Your task to perform on an android device: Open the stopwatch Image 0: 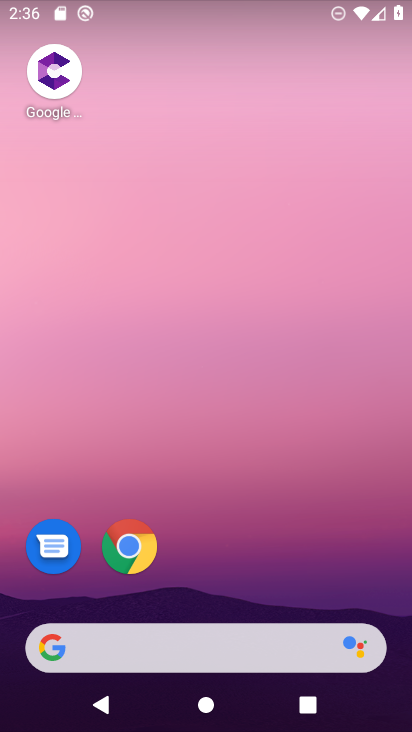
Step 0: drag from (333, 534) to (361, 89)
Your task to perform on an android device: Open the stopwatch Image 1: 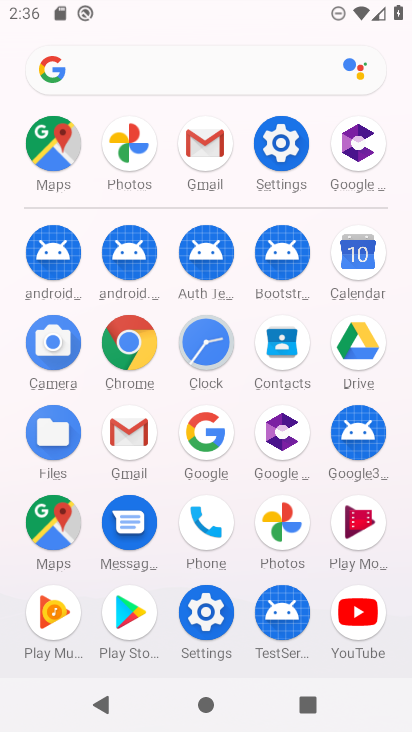
Step 1: click (211, 340)
Your task to perform on an android device: Open the stopwatch Image 2: 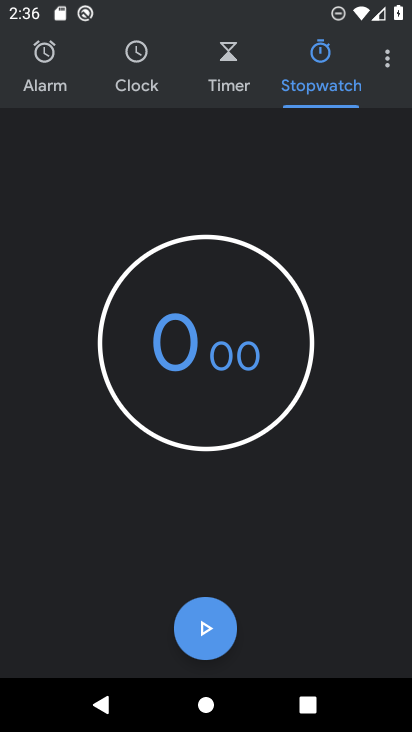
Step 2: task complete